Your task to perform on an android device: set the stopwatch Image 0: 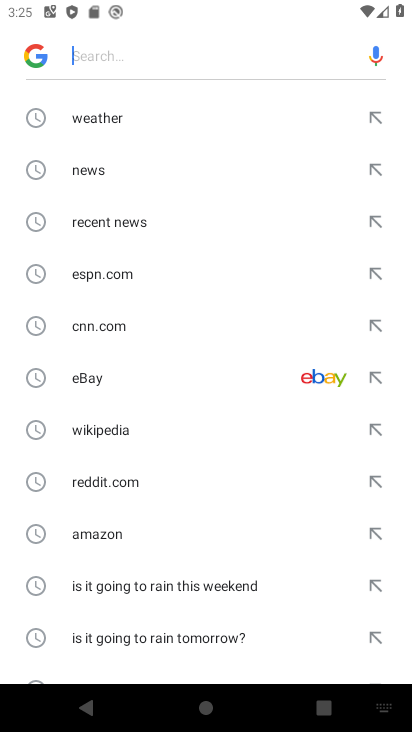
Step 0: press home button
Your task to perform on an android device: set the stopwatch Image 1: 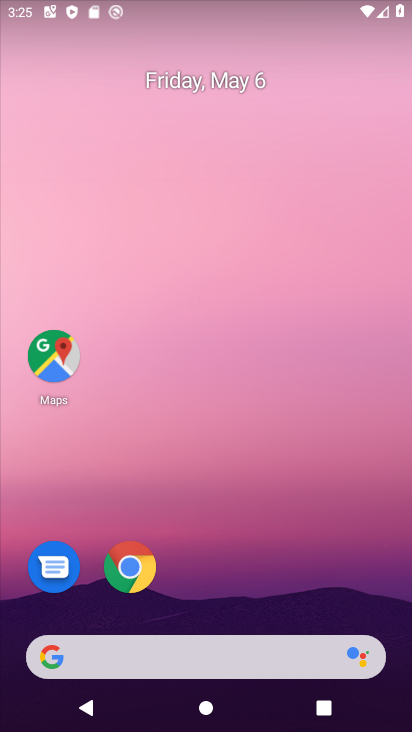
Step 1: drag from (161, 614) to (155, 206)
Your task to perform on an android device: set the stopwatch Image 2: 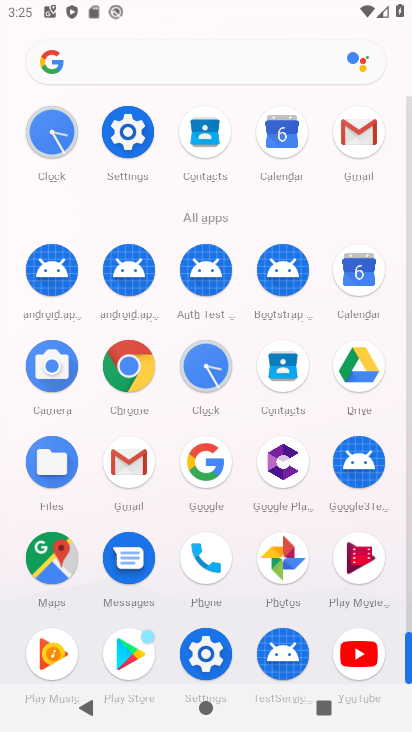
Step 2: click (190, 374)
Your task to perform on an android device: set the stopwatch Image 3: 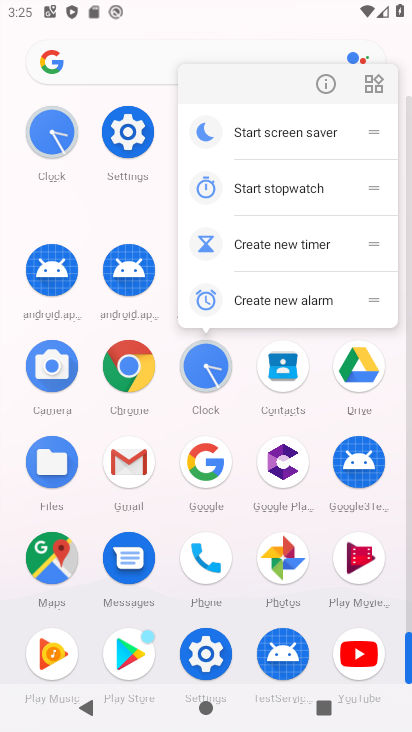
Step 3: click (195, 371)
Your task to perform on an android device: set the stopwatch Image 4: 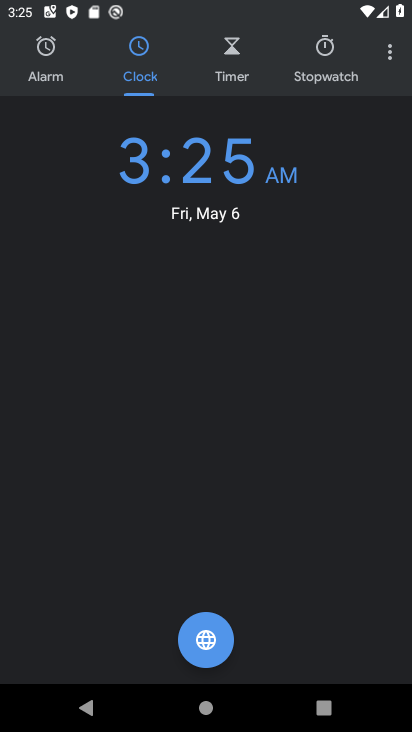
Step 4: click (308, 77)
Your task to perform on an android device: set the stopwatch Image 5: 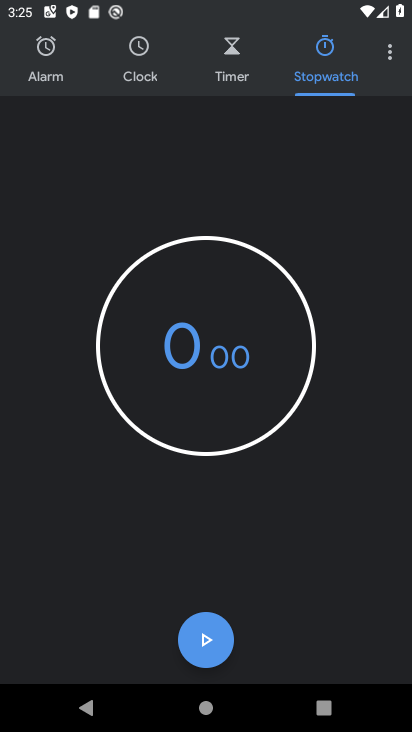
Step 5: click (189, 347)
Your task to perform on an android device: set the stopwatch Image 6: 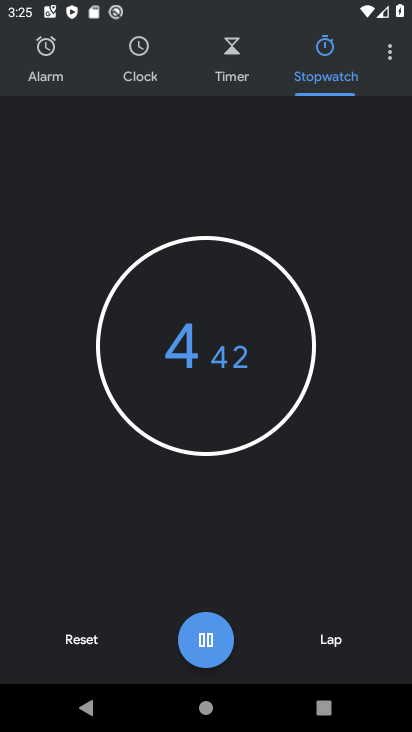
Step 6: click (213, 642)
Your task to perform on an android device: set the stopwatch Image 7: 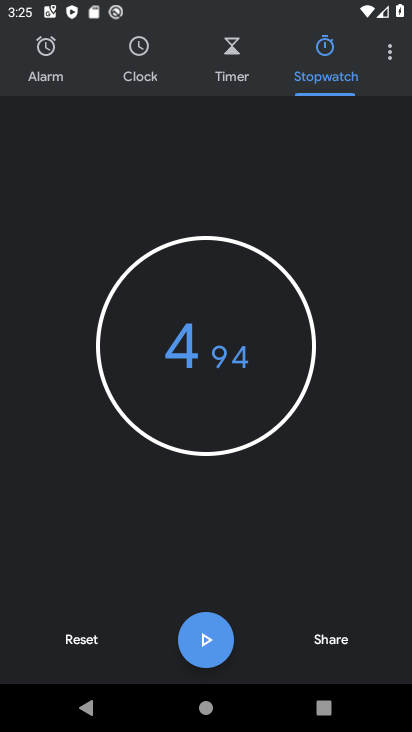
Step 7: task complete